Your task to perform on an android device: Turn off the flashlight Image 0: 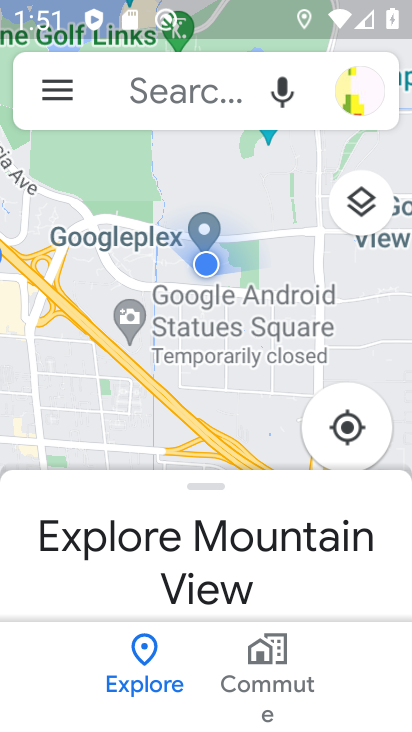
Step 0: press back button
Your task to perform on an android device: Turn off the flashlight Image 1: 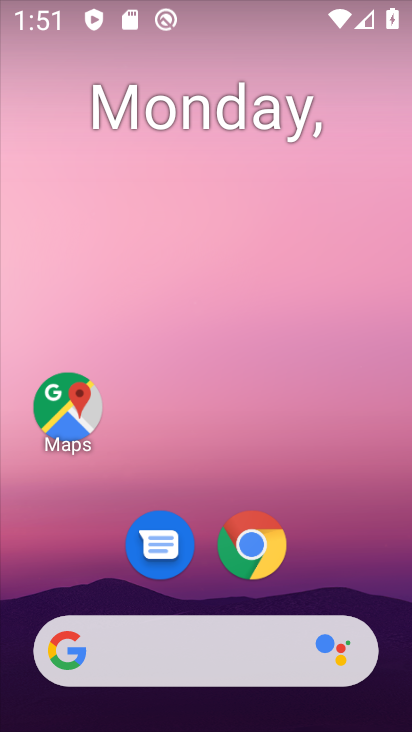
Step 1: drag from (193, 593) to (305, 116)
Your task to perform on an android device: Turn off the flashlight Image 2: 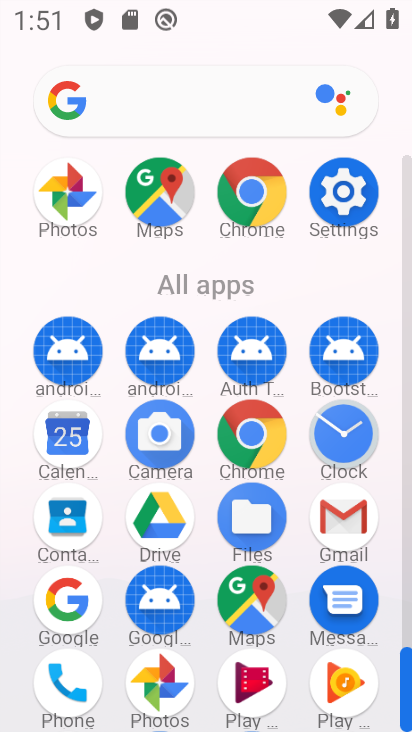
Step 2: click (347, 186)
Your task to perform on an android device: Turn off the flashlight Image 3: 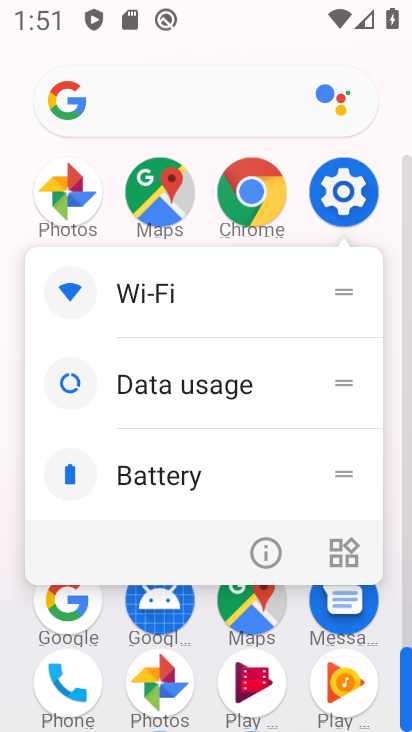
Step 3: click (345, 188)
Your task to perform on an android device: Turn off the flashlight Image 4: 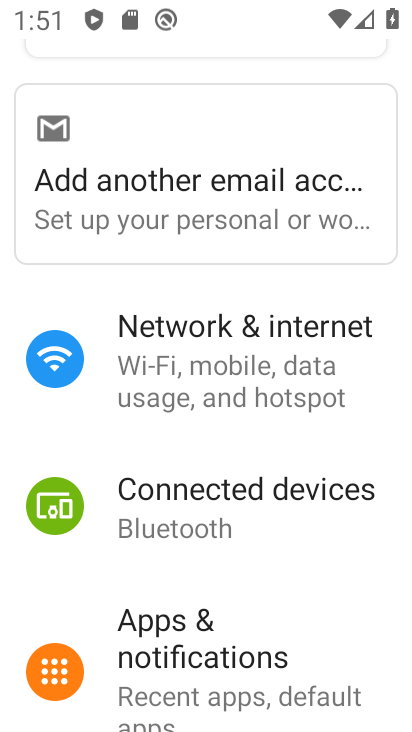
Step 4: drag from (266, 145) to (254, 570)
Your task to perform on an android device: Turn off the flashlight Image 5: 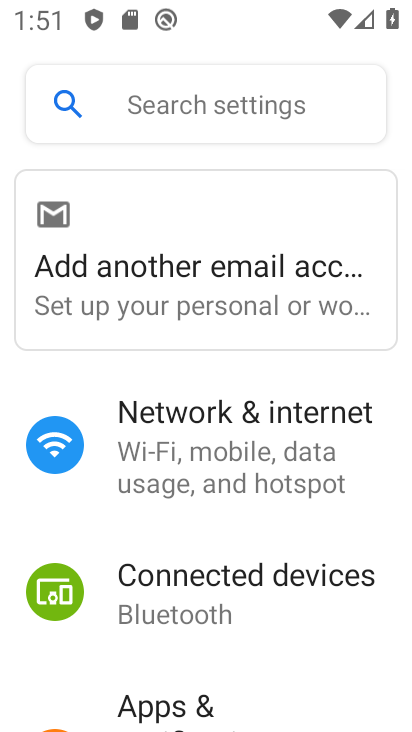
Step 5: click (152, 113)
Your task to perform on an android device: Turn off the flashlight Image 6: 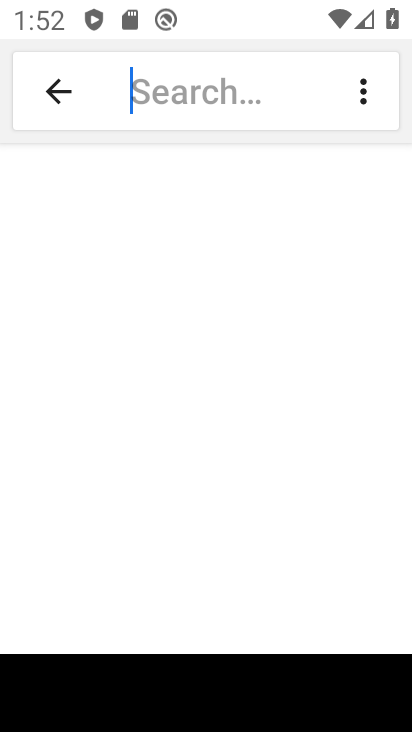
Step 6: type "flashlight"
Your task to perform on an android device: Turn off the flashlight Image 7: 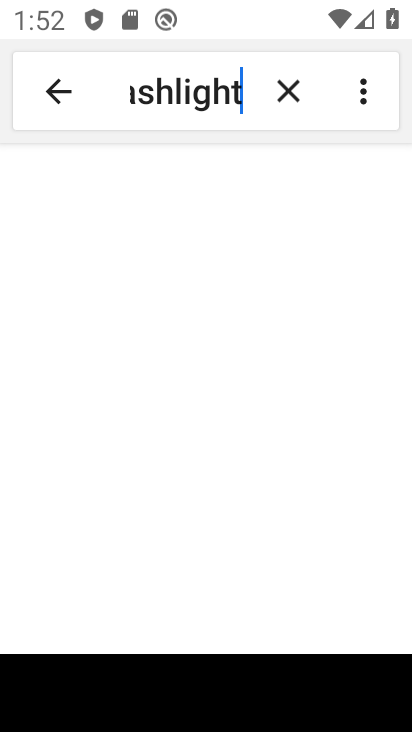
Step 7: task complete